Your task to perform on an android device: open a bookmark in the chrome app Image 0: 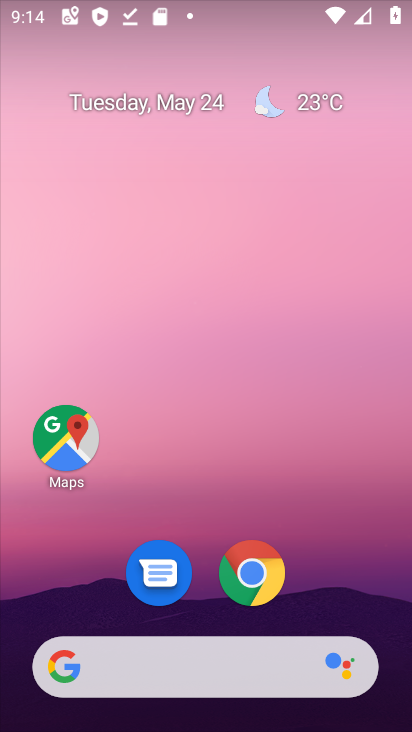
Step 0: drag from (322, 699) to (243, 109)
Your task to perform on an android device: open a bookmark in the chrome app Image 1: 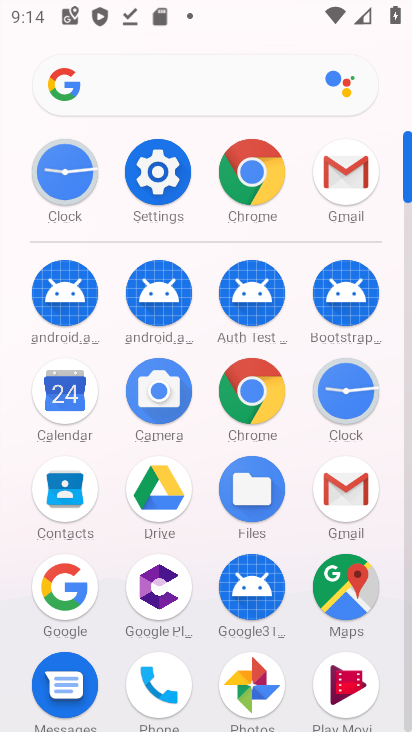
Step 1: click (246, 173)
Your task to perform on an android device: open a bookmark in the chrome app Image 2: 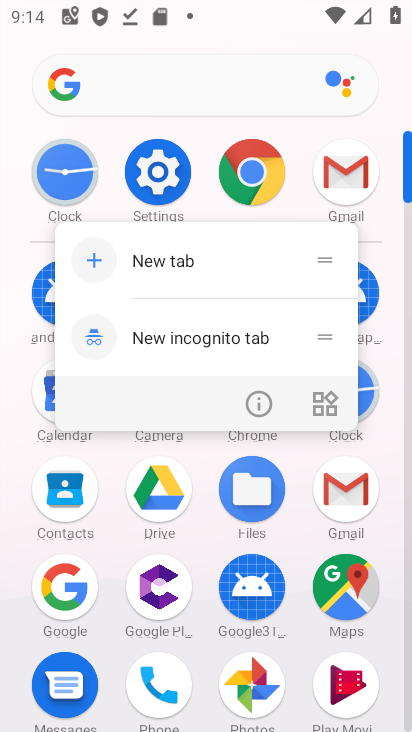
Step 2: click (166, 258)
Your task to perform on an android device: open a bookmark in the chrome app Image 3: 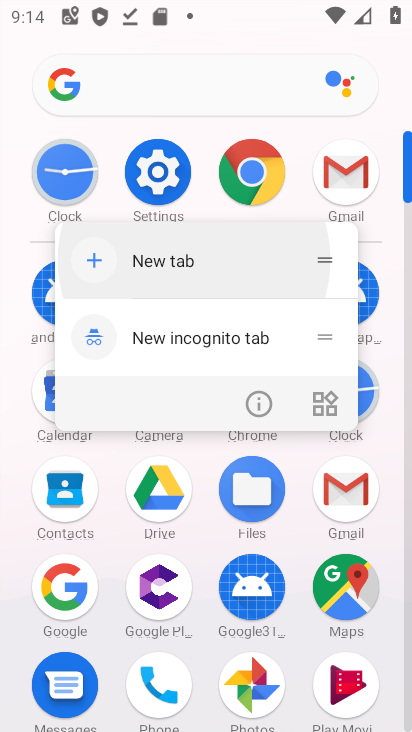
Step 3: click (175, 252)
Your task to perform on an android device: open a bookmark in the chrome app Image 4: 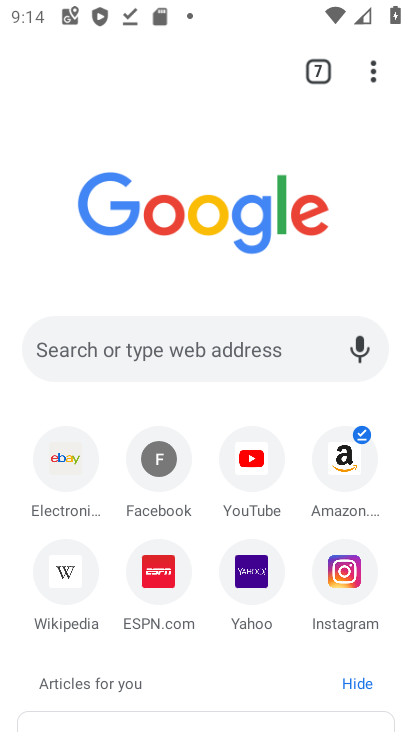
Step 4: click (372, 63)
Your task to perform on an android device: open a bookmark in the chrome app Image 5: 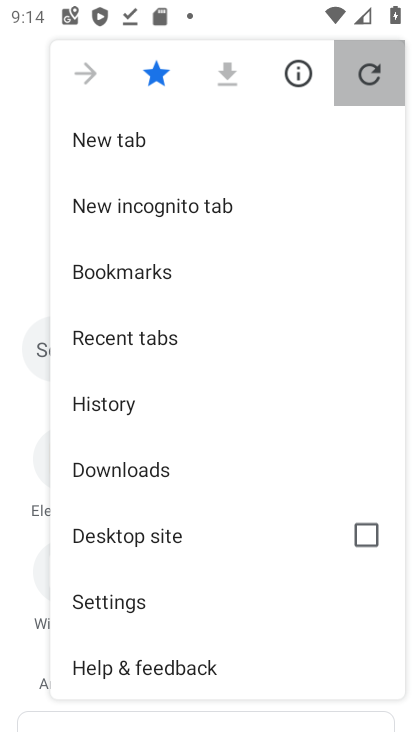
Step 5: click (372, 63)
Your task to perform on an android device: open a bookmark in the chrome app Image 6: 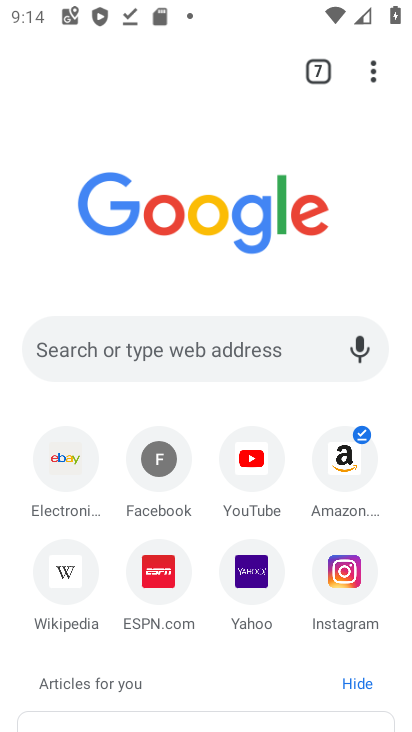
Step 6: click (372, 63)
Your task to perform on an android device: open a bookmark in the chrome app Image 7: 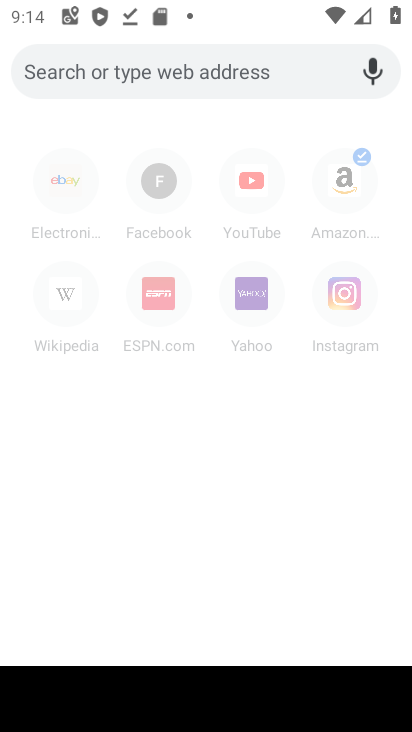
Step 7: press back button
Your task to perform on an android device: open a bookmark in the chrome app Image 8: 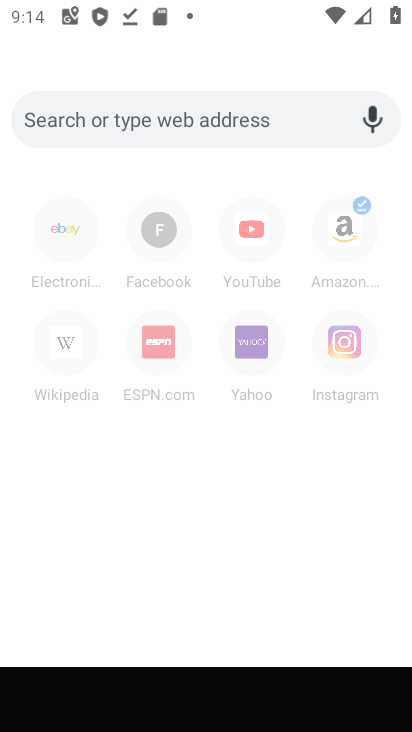
Step 8: press back button
Your task to perform on an android device: open a bookmark in the chrome app Image 9: 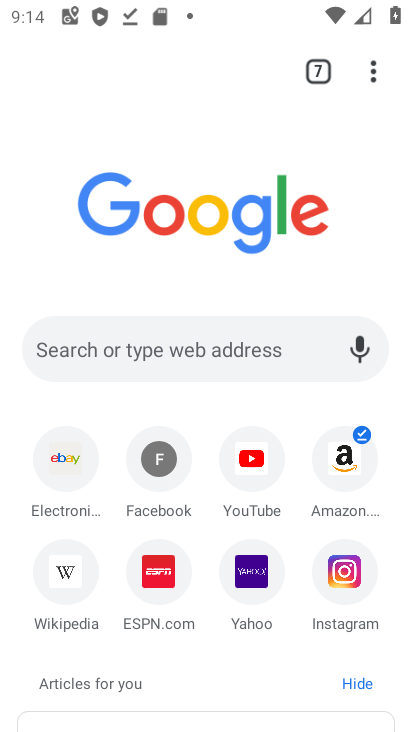
Step 9: press back button
Your task to perform on an android device: open a bookmark in the chrome app Image 10: 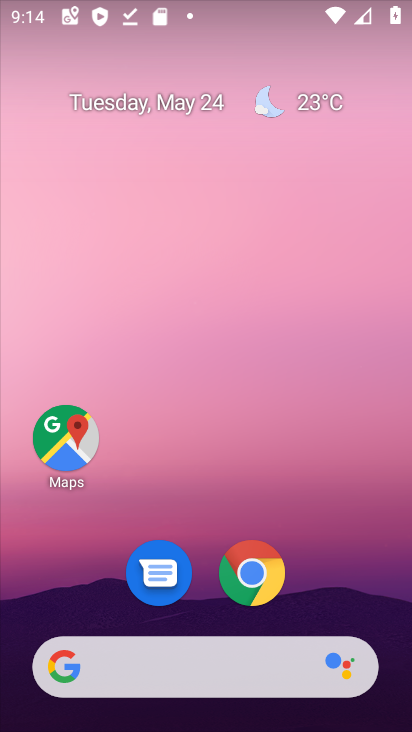
Step 10: drag from (346, 683) to (270, 162)
Your task to perform on an android device: open a bookmark in the chrome app Image 11: 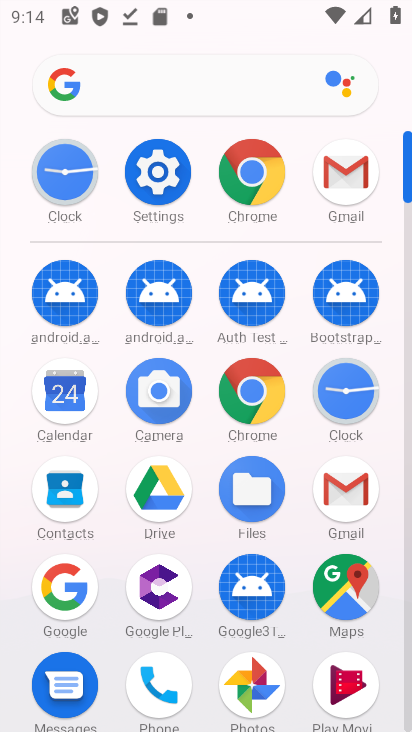
Step 11: click (253, 182)
Your task to perform on an android device: open a bookmark in the chrome app Image 12: 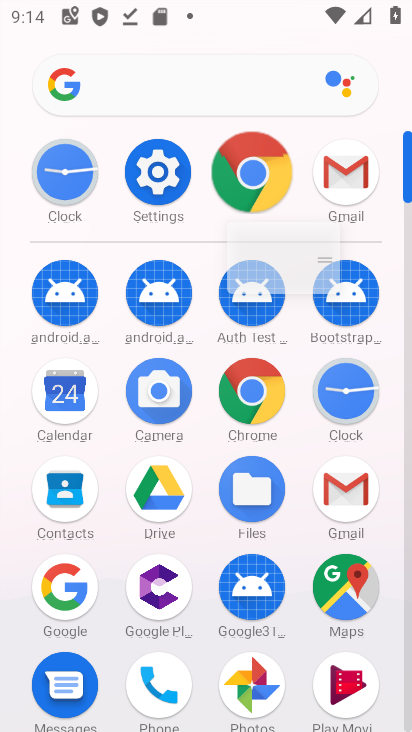
Step 12: click (256, 181)
Your task to perform on an android device: open a bookmark in the chrome app Image 13: 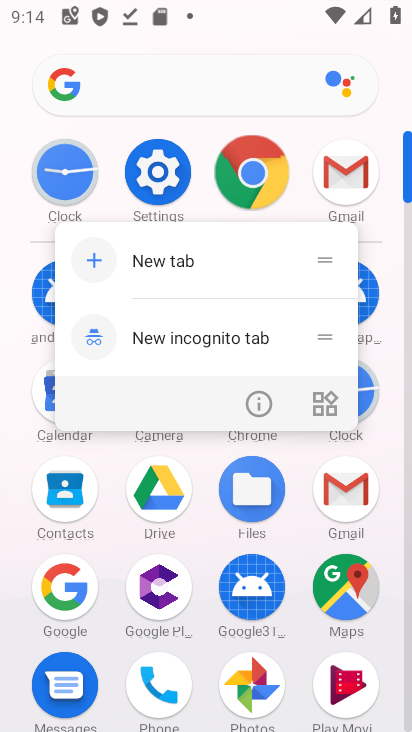
Step 13: click (256, 181)
Your task to perform on an android device: open a bookmark in the chrome app Image 14: 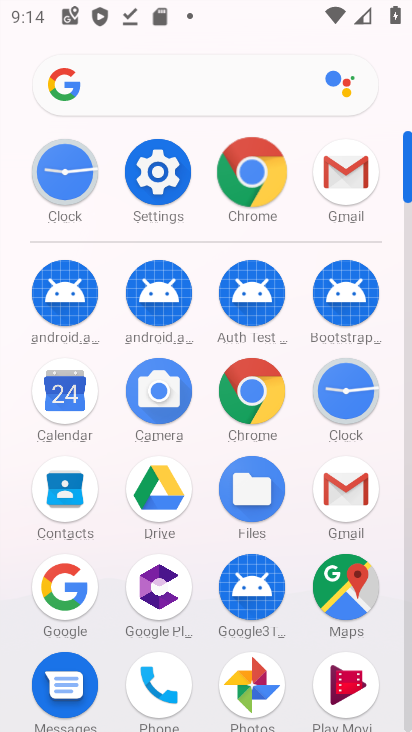
Step 14: click (257, 180)
Your task to perform on an android device: open a bookmark in the chrome app Image 15: 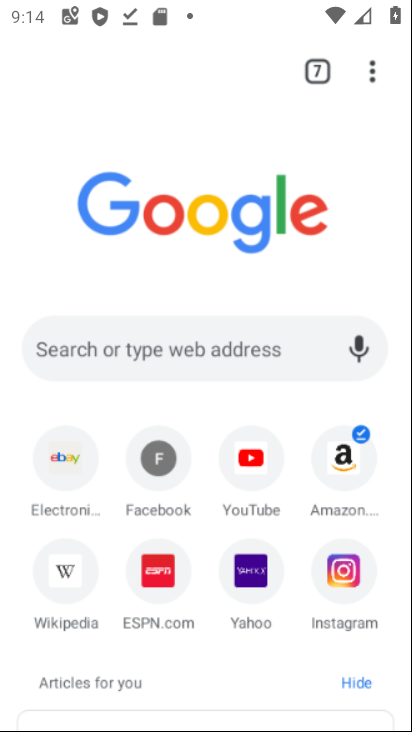
Step 15: click (256, 179)
Your task to perform on an android device: open a bookmark in the chrome app Image 16: 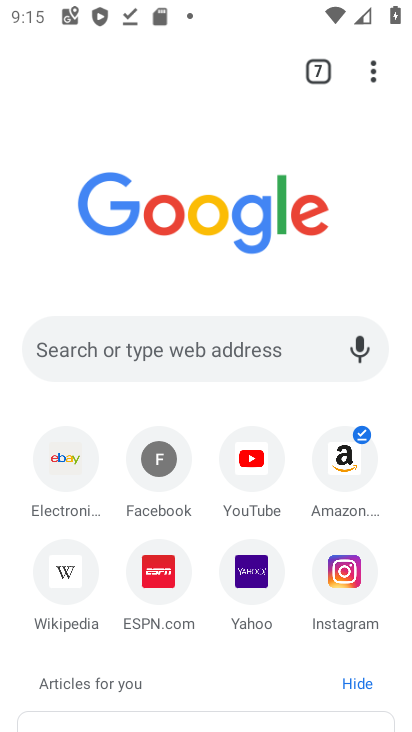
Step 16: drag from (373, 69) to (110, 275)
Your task to perform on an android device: open a bookmark in the chrome app Image 17: 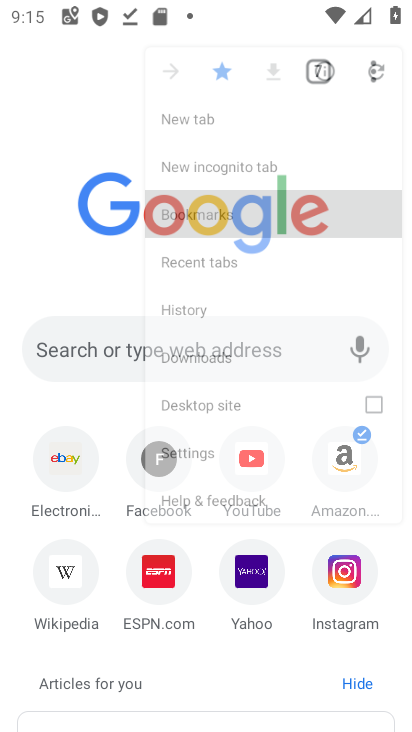
Step 17: click (111, 275)
Your task to perform on an android device: open a bookmark in the chrome app Image 18: 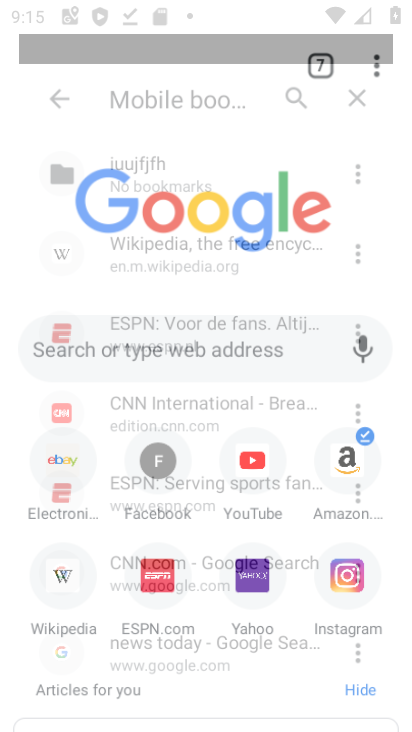
Step 18: click (111, 275)
Your task to perform on an android device: open a bookmark in the chrome app Image 19: 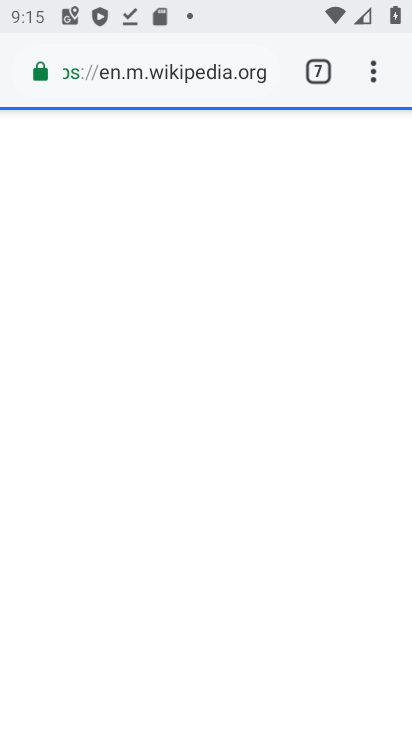
Step 19: task complete